Your task to perform on an android device: turn on notifications settings in the gmail app Image 0: 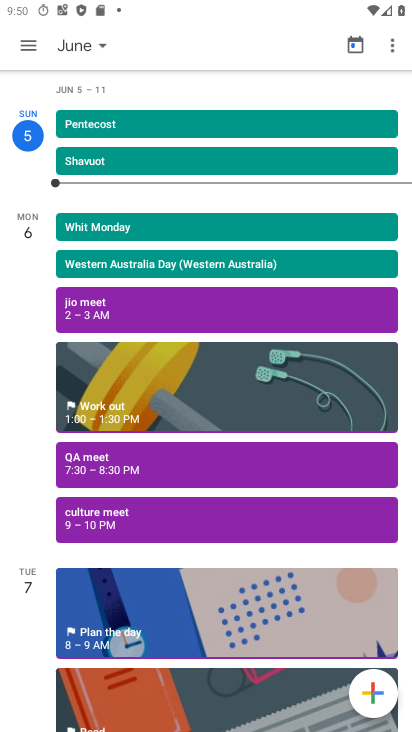
Step 0: press home button
Your task to perform on an android device: turn on notifications settings in the gmail app Image 1: 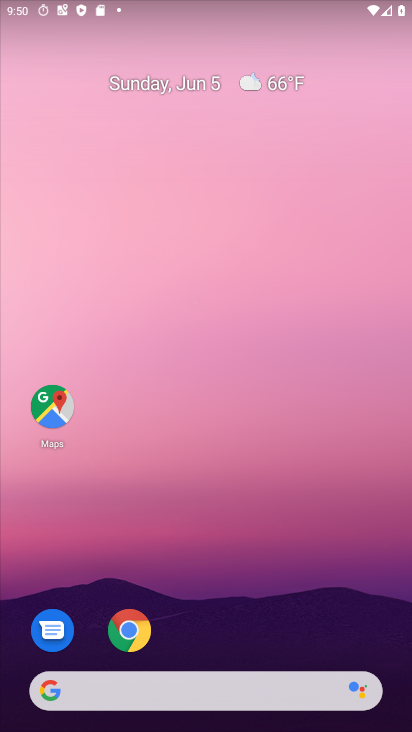
Step 1: drag from (223, 731) to (226, 118)
Your task to perform on an android device: turn on notifications settings in the gmail app Image 2: 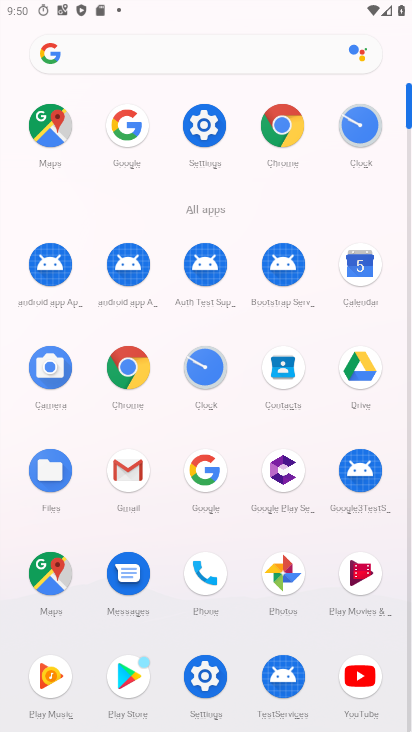
Step 2: click (129, 473)
Your task to perform on an android device: turn on notifications settings in the gmail app Image 3: 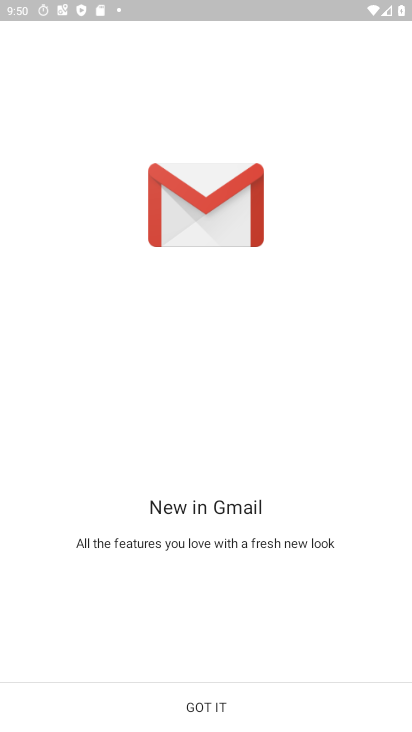
Step 3: click (200, 703)
Your task to perform on an android device: turn on notifications settings in the gmail app Image 4: 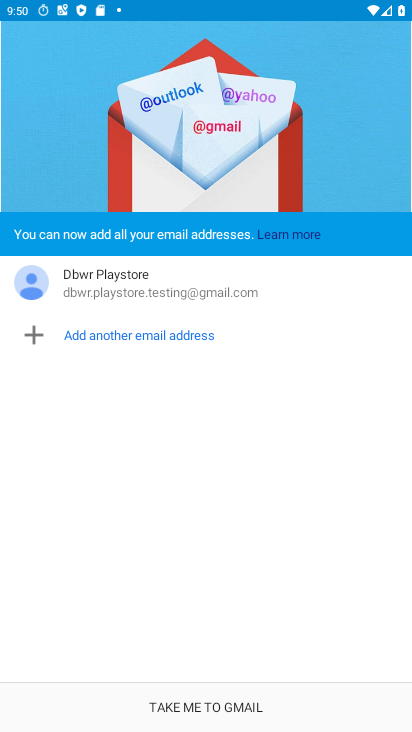
Step 4: click (186, 700)
Your task to perform on an android device: turn on notifications settings in the gmail app Image 5: 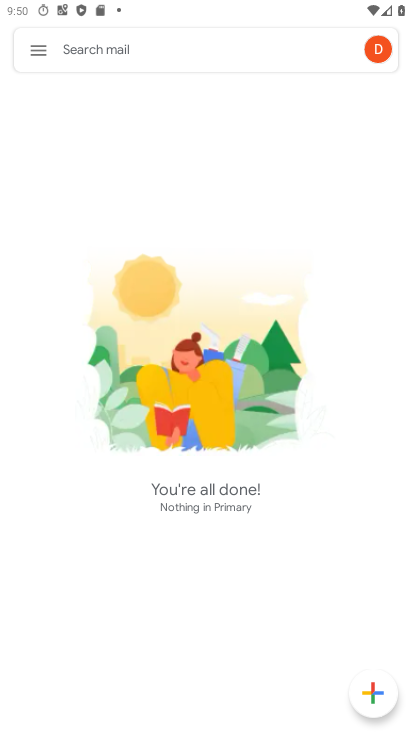
Step 5: click (33, 46)
Your task to perform on an android device: turn on notifications settings in the gmail app Image 6: 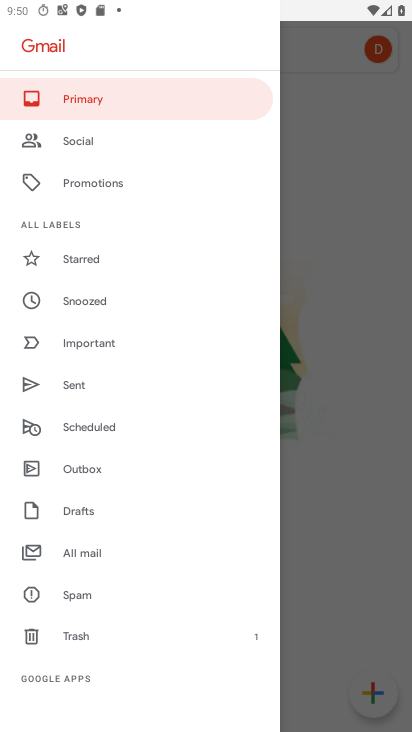
Step 6: drag from (99, 664) to (99, 257)
Your task to perform on an android device: turn on notifications settings in the gmail app Image 7: 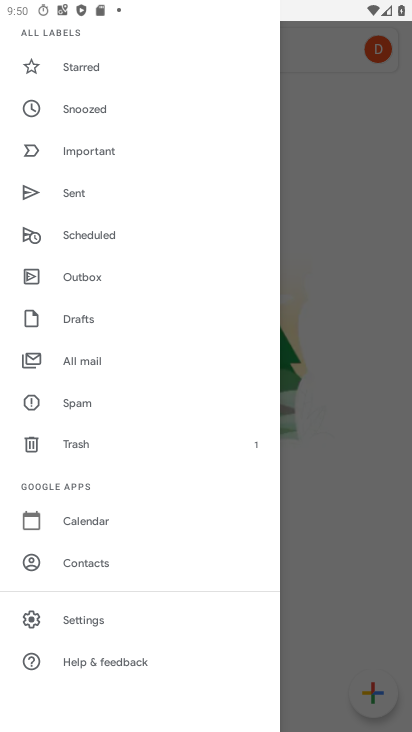
Step 7: click (96, 617)
Your task to perform on an android device: turn on notifications settings in the gmail app Image 8: 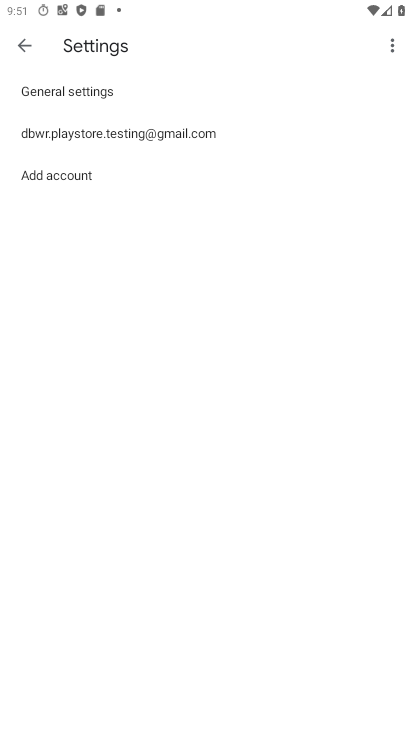
Step 8: click (144, 130)
Your task to perform on an android device: turn on notifications settings in the gmail app Image 9: 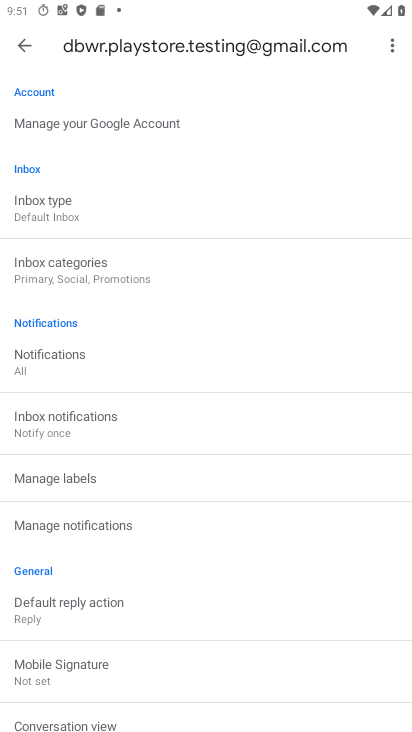
Step 9: task complete